Your task to perform on an android device: turn off javascript in the chrome app Image 0: 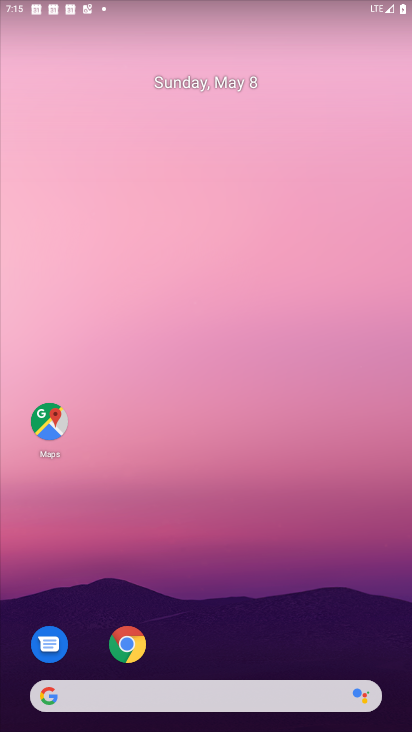
Step 0: click (133, 637)
Your task to perform on an android device: turn off javascript in the chrome app Image 1: 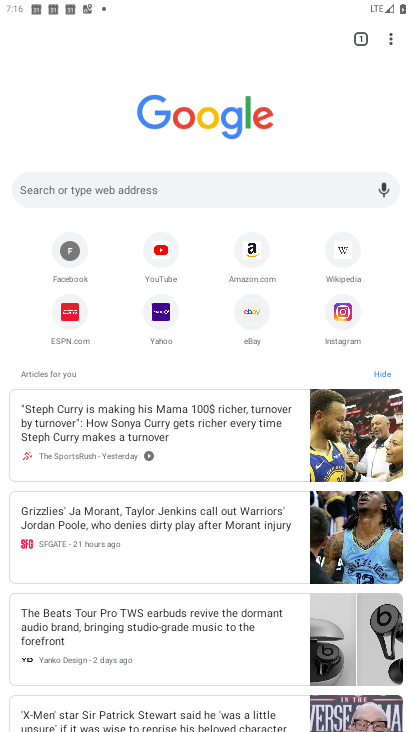
Step 1: click (394, 38)
Your task to perform on an android device: turn off javascript in the chrome app Image 2: 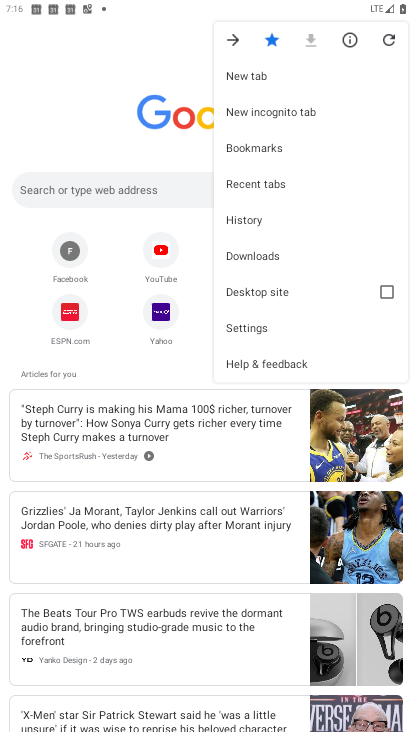
Step 2: click (276, 330)
Your task to perform on an android device: turn off javascript in the chrome app Image 3: 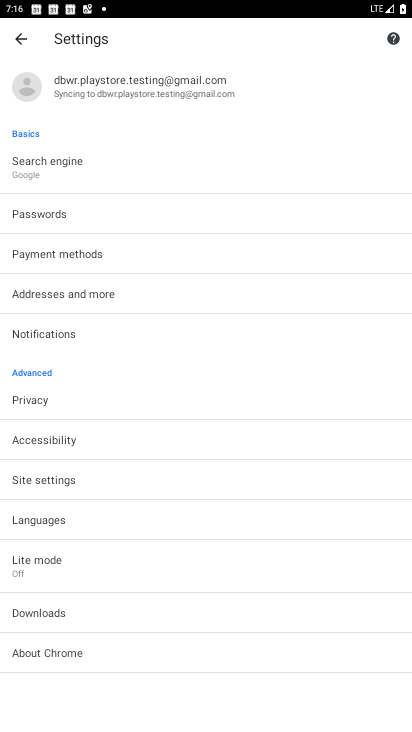
Step 3: click (105, 489)
Your task to perform on an android device: turn off javascript in the chrome app Image 4: 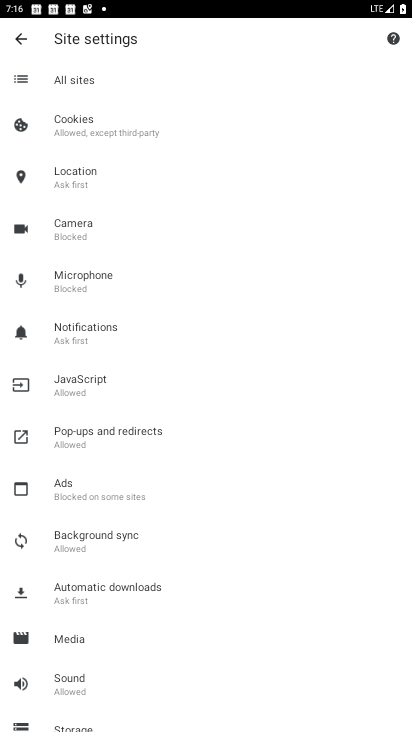
Step 4: click (108, 392)
Your task to perform on an android device: turn off javascript in the chrome app Image 5: 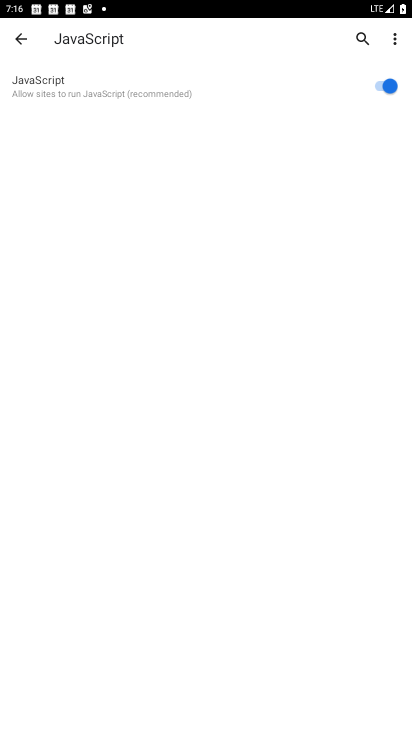
Step 5: click (368, 92)
Your task to perform on an android device: turn off javascript in the chrome app Image 6: 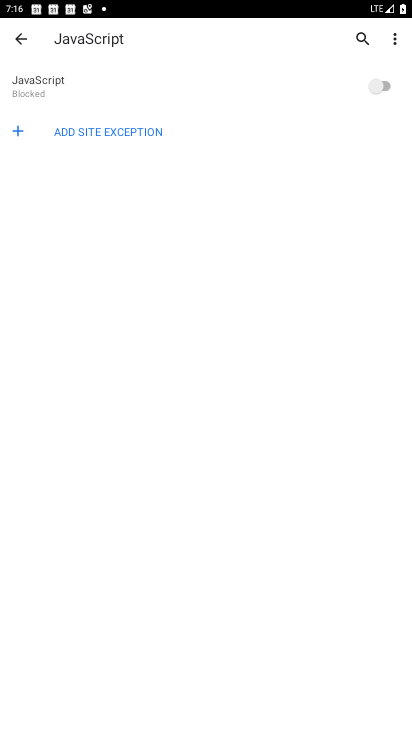
Step 6: task complete